Your task to perform on an android device: What's on my calendar tomorrow? Image 0: 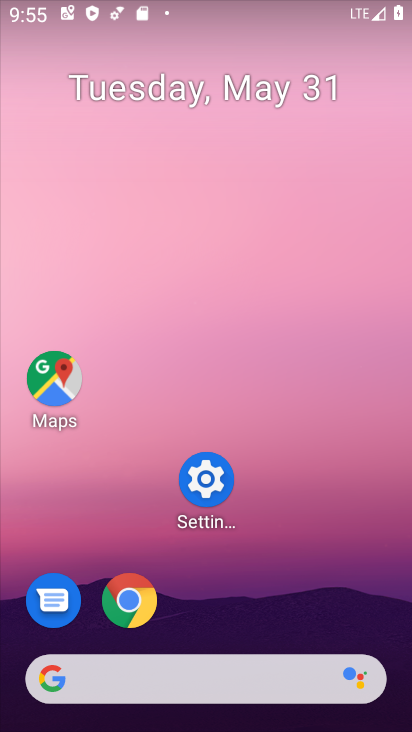
Step 0: press home button
Your task to perform on an android device: What's on my calendar tomorrow? Image 1: 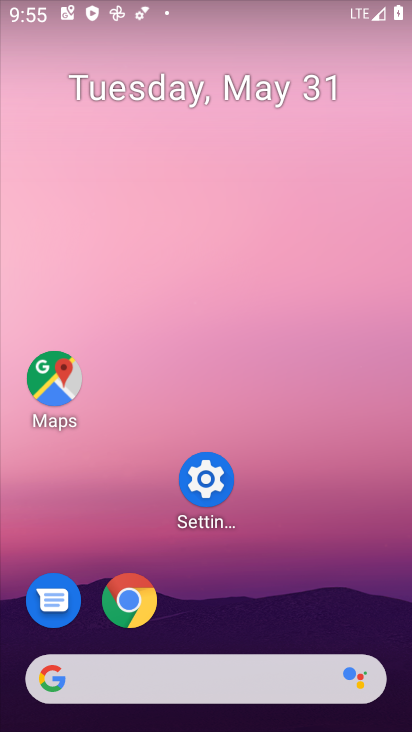
Step 1: drag from (207, 718) to (387, 164)
Your task to perform on an android device: What's on my calendar tomorrow? Image 2: 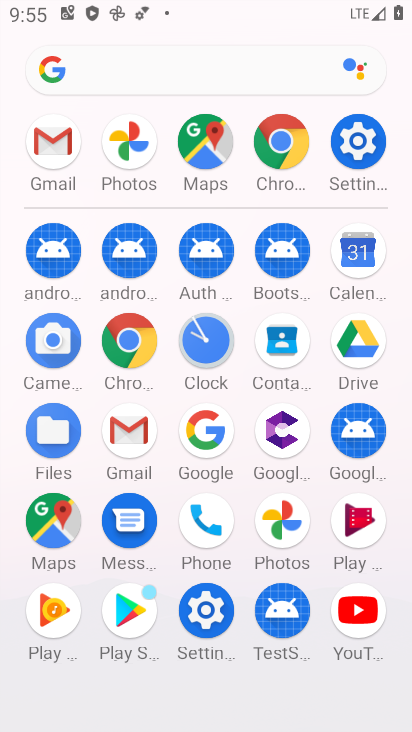
Step 2: click (353, 262)
Your task to perform on an android device: What's on my calendar tomorrow? Image 3: 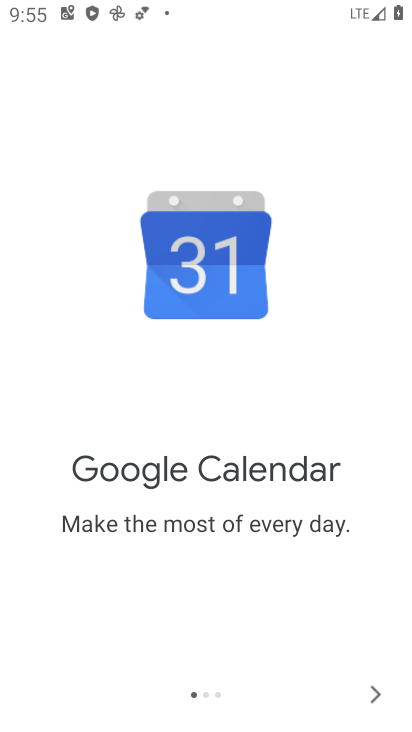
Step 3: click (378, 696)
Your task to perform on an android device: What's on my calendar tomorrow? Image 4: 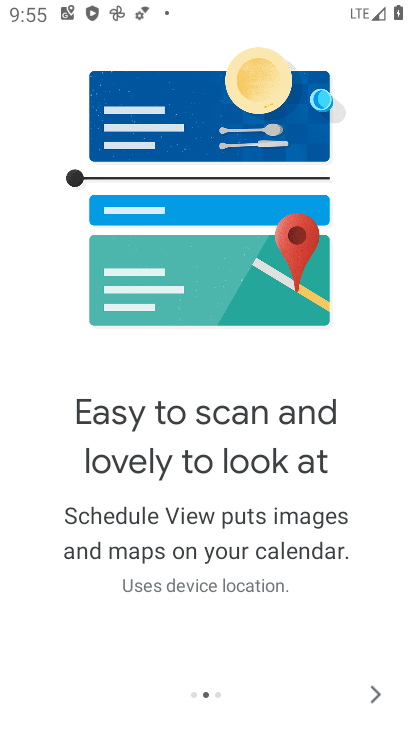
Step 4: click (381, 703)
Your task to perform on an android device: What's on my calendar tomorrow? Image 5: 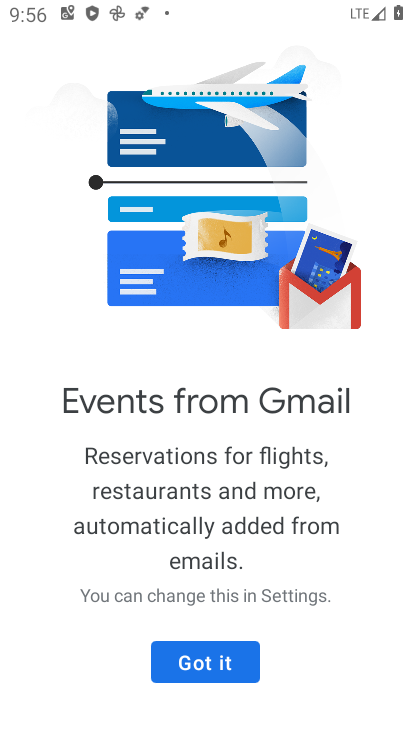
Step 5: click (188, 669)
Your task to perform on an android device: What's on my calendar tomorrow? Image 6: 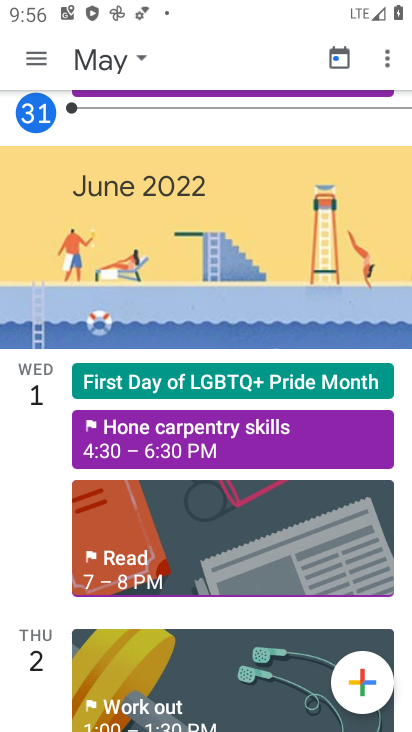
Step 6: task complete